Your task to perform on an android device: turn notification dots off Image 0: 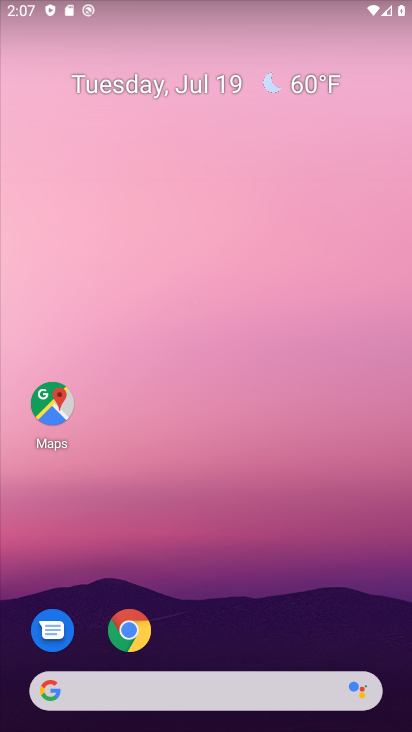
Step 0: press home button
Your task to perform on an android device: turn notification dots off Image 1: 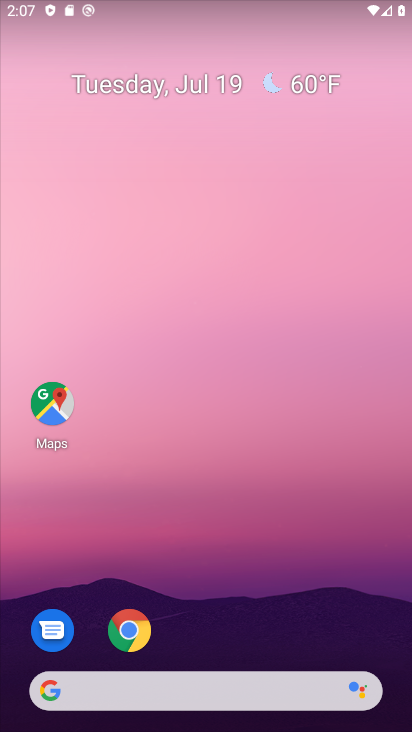
Step 1: click (267, 414)
Your task to perform on an android device: turn notification dots off Image 2: 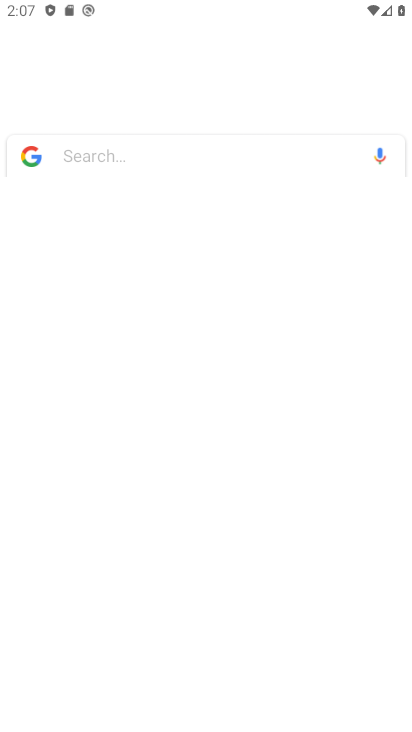
Step 2: drag from (199, 532) to (150, 173)
Your task to perform on an android device: turn notification dots off Image 3: 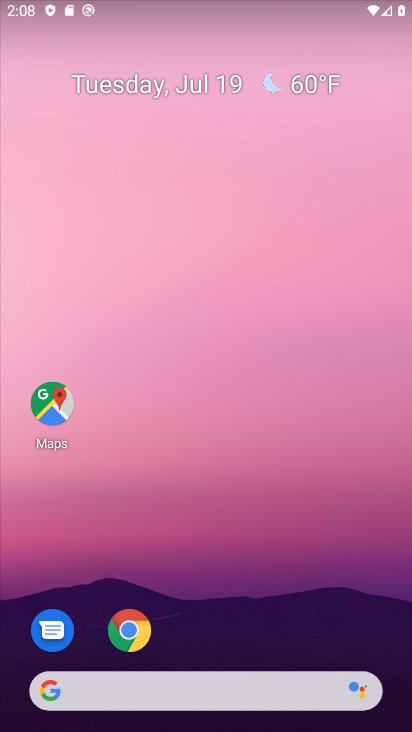
Step 3: drag from (200, 656) to (86, 133)
Your task to perform on an android device: turn notification dots off Image 4: 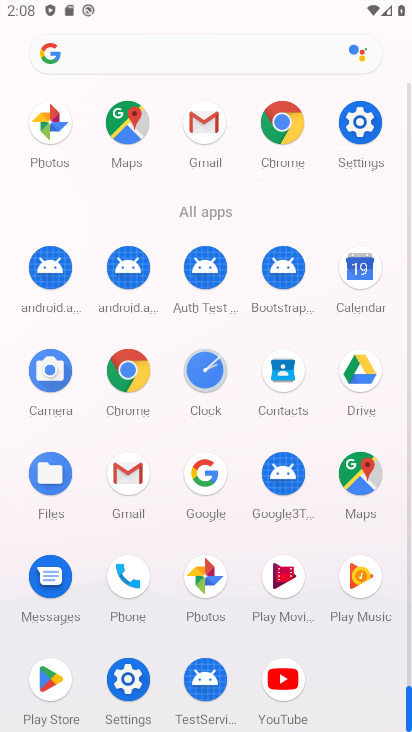
Step 4: click (349, 125)
Your task to perform on an android device: turn notification dots off Image 5: 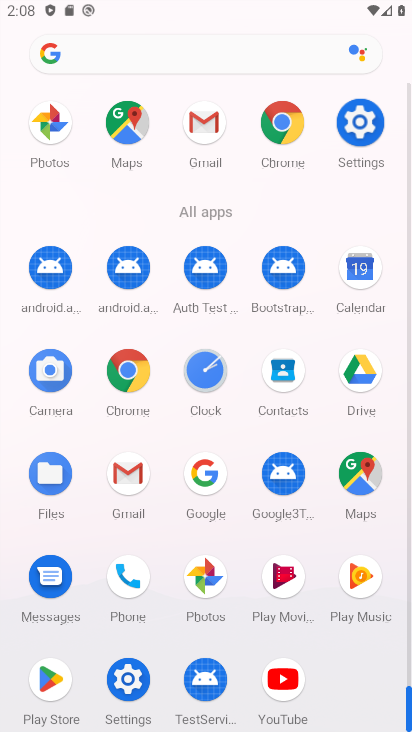
Step 5: click (350, 124)
Your task to perform on an android device: turn notification dots off Image 6: 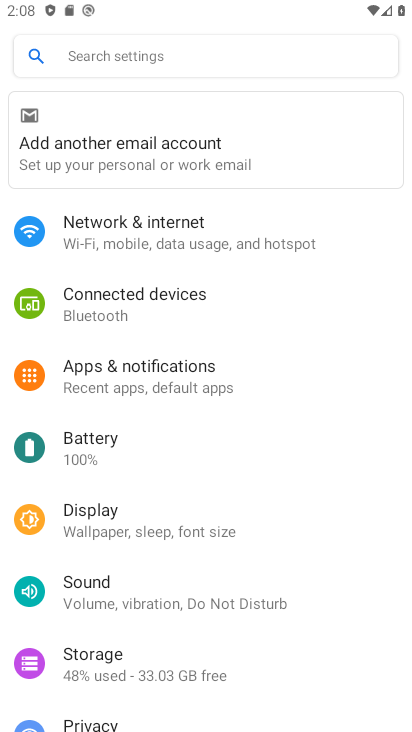
Step 6: click (144, 378)
Your task to perform on an android device: turn notification dots off Image 7: 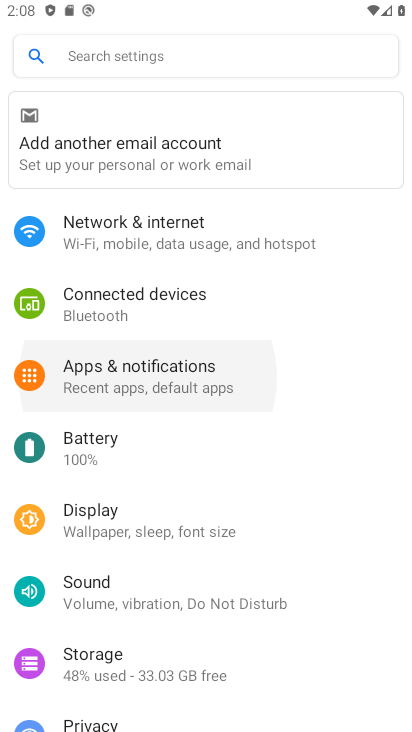
Step 7: click (145, 361)
Your task to perform on an android device: turn notification dots off Image 8: 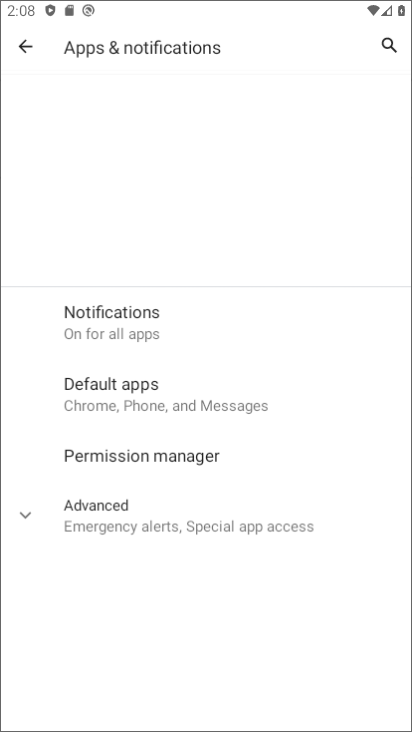
Step 8: click (150, 367)
Your task to perform on an android device: turn notification dots off Image 9: 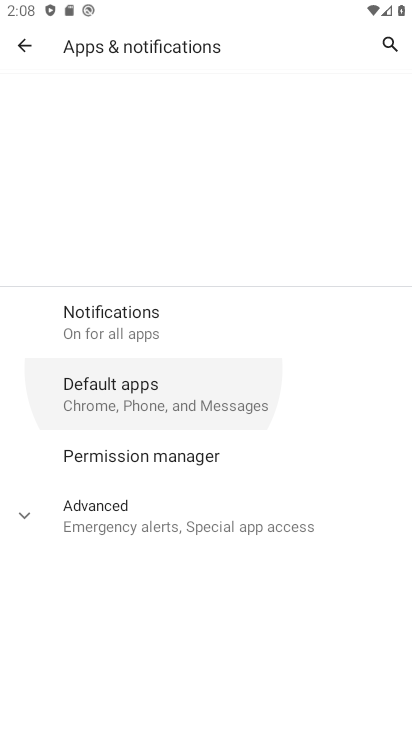
Step 9: click (156, 374)
Your task to perform on an android device: turn notification dots off Image 10: 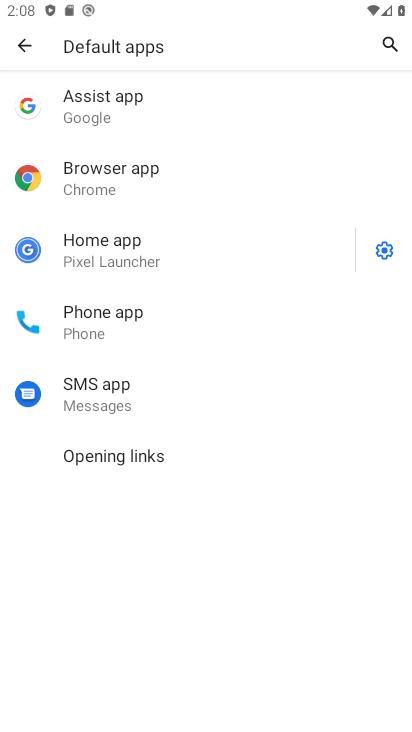
Step 10: click (20, 32)
Your task to perform on an android device: turn notification dots off Image 11: 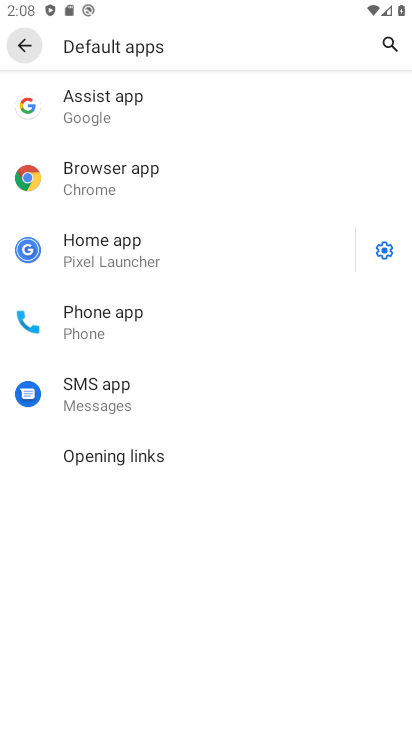
Step 11: click (27, 40)
Your task to perform on an android device: turn notification dots off Image 12: 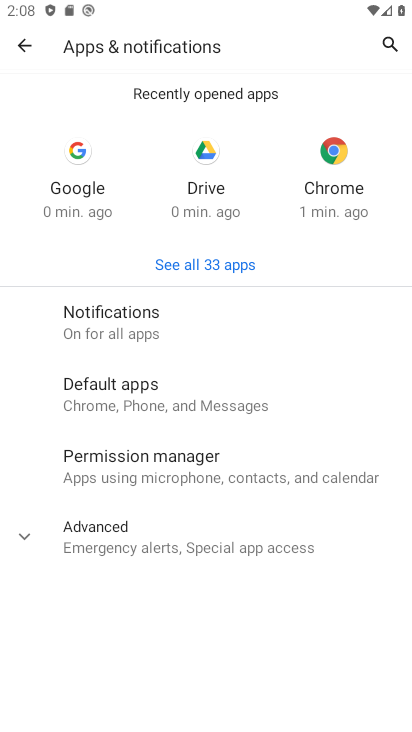
Step 12: click (17, 45)
Your task to perform on an android device: turn notification dots off Image 13: 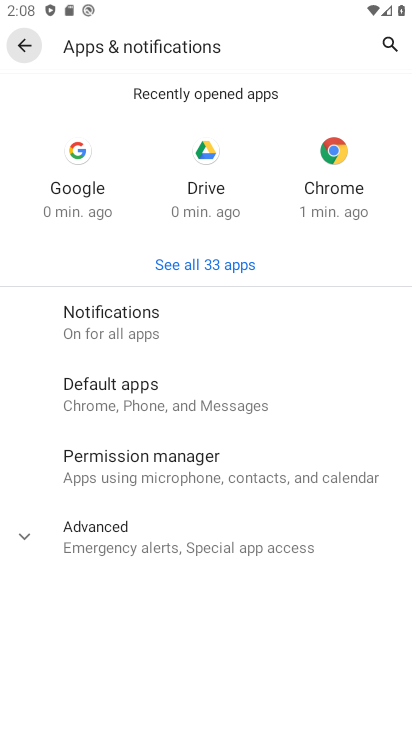
Step 13: click (16, 40)
Your task to perform on an android device: turn notification dots off Image 14: 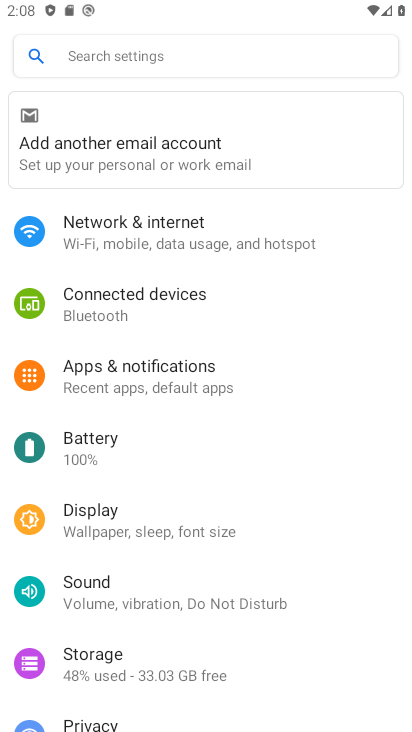
Step 14: click (128, 368)
Your task to perform on an android device: turn notification dots off Image 15: 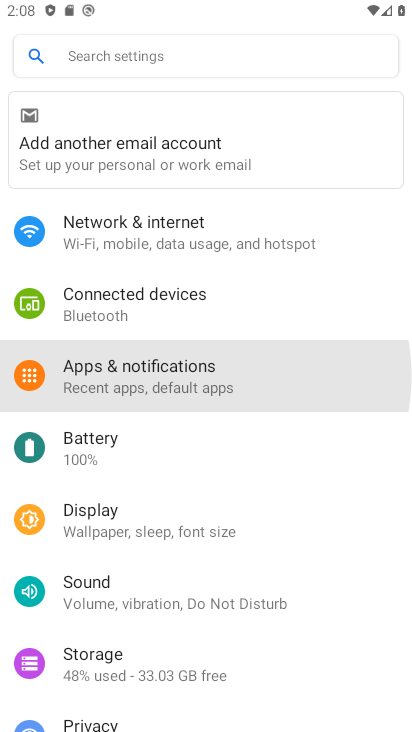
Step 15: click (129, 369)
Your task to perform on an android device: turn notification dots off Image 16: 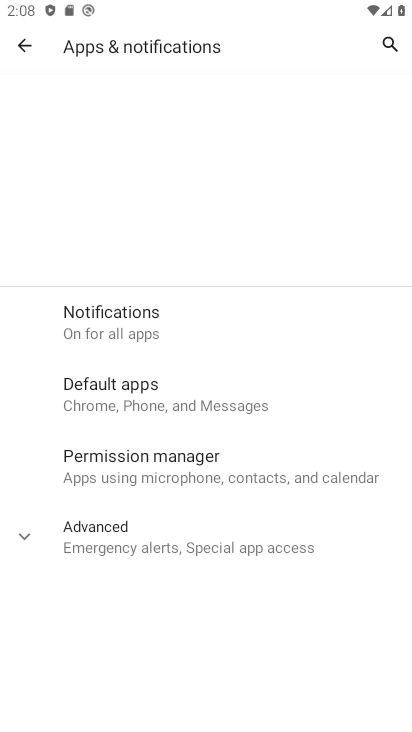
Step 16: click (108, 324)
Your task to perform on an android device: turn notification dots off Image 17: 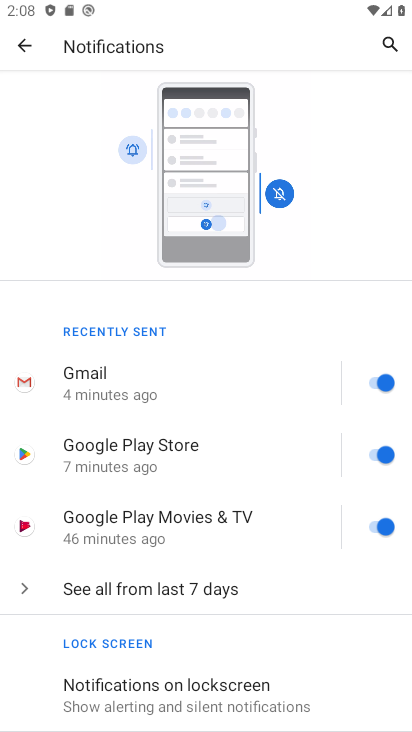
Step 17: drag from (148, 610) to (130, 235)
Your task to perform on an android device: turn notification dots off Image 18: 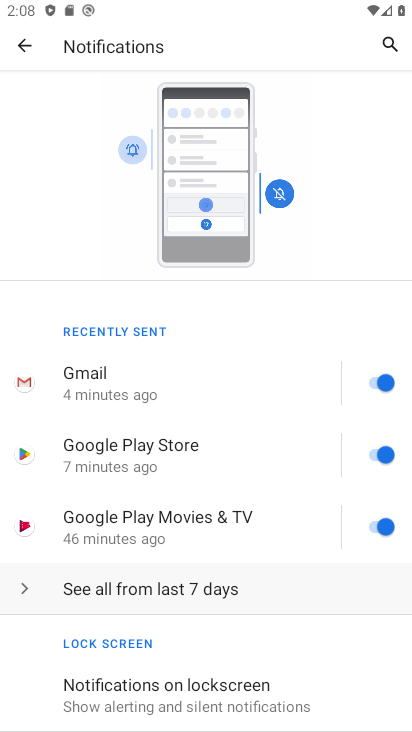
Step 18: drag from (153, 511) to (164, 268)
Your task to perform on an android device: turn notification dots off Image 19: 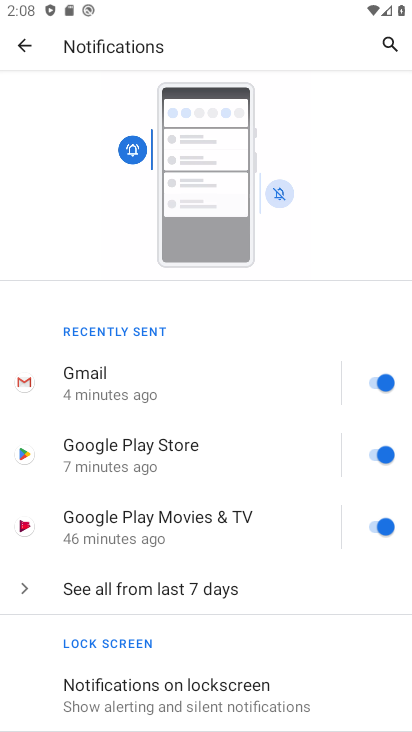
Step 19: drag from (225, 580) to (162, 115)
Your task to perform on an android device: turn notification dots off Image 20: 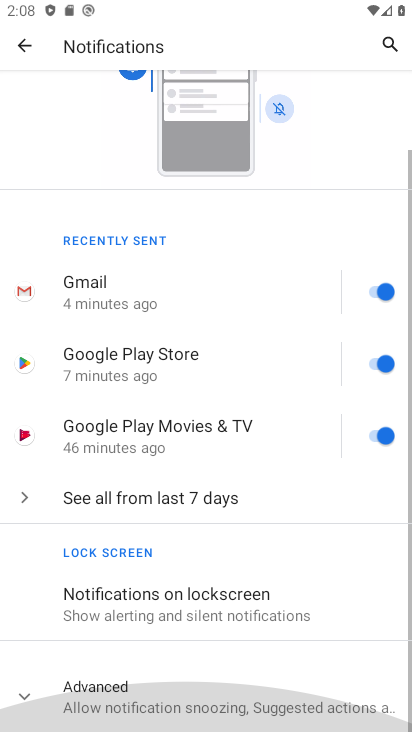
Step 20: drag from (226, 543) to (216, 127)
Your task to perform on an android device: turn notification dots off Image 21: 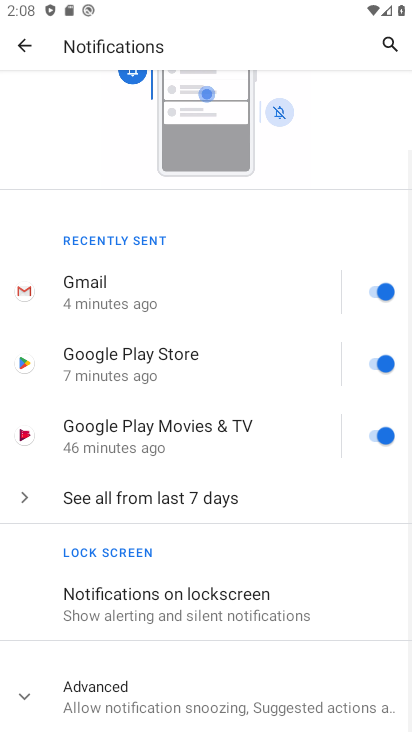
Step 21: drag from (146, 677) to (143, 290)
Your task to perform on an android device: turn notification dots off Image 22: 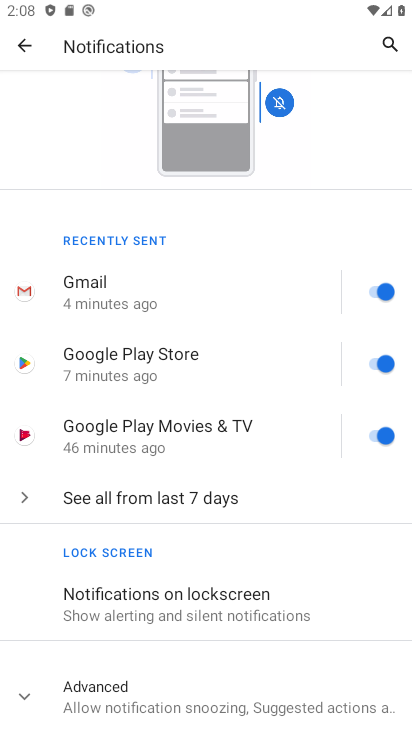
Step 22: click (106, 697)
Your task to perform on an android device: turn notification dots off Image 23: 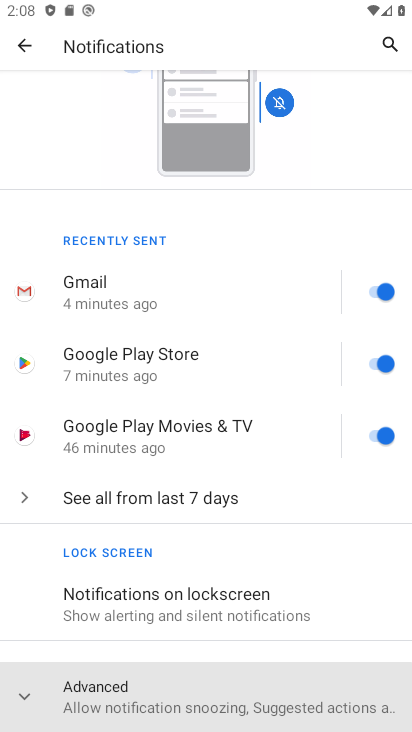
Step 23: click (109, 694)
Your task to perform on an android device: turn notification dots off Image 24: 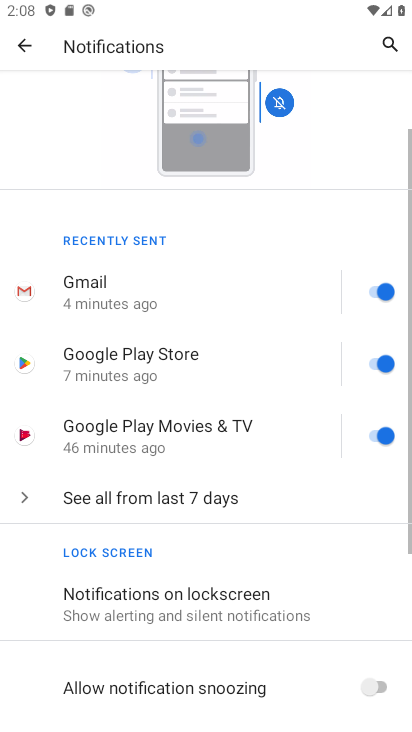
Step 24: click (118, 692)
Your task to perform on an android device: turn notification dots off Image 25: 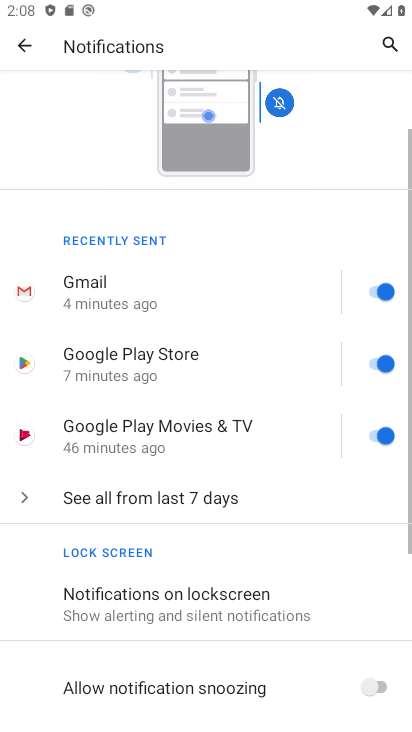
Step 25: task complete